Your task to perform on an android device: Go to display settings Image 0: 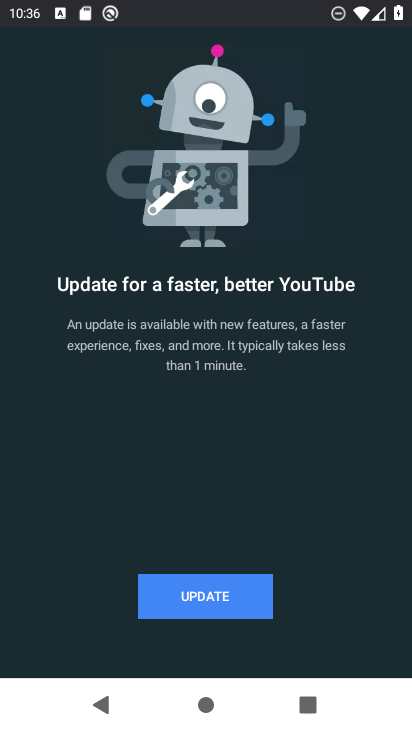
Step 0: press home button
Your task to perform on an android device: Go to display settings Image 1: 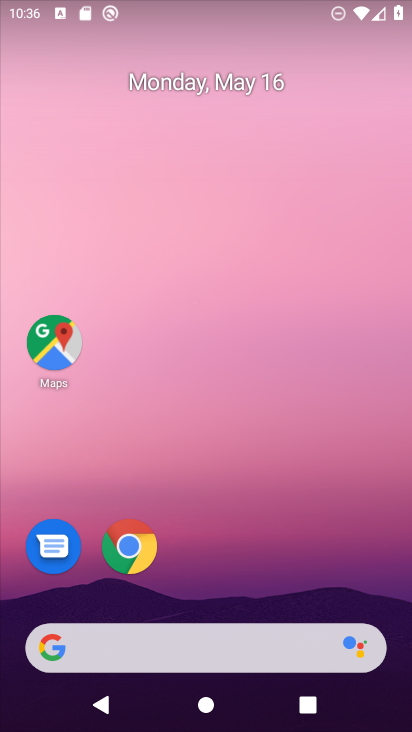
Step 1: drag from (241, 610) to (206, 236)
Your task to perform on an android device: Go to display settings Image 2: 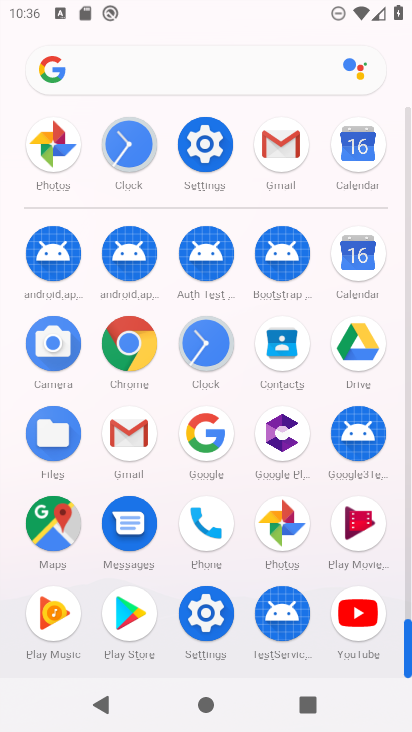
Step 2: click (214, 146)
Your task to perform on an android device: Go to display settings Image 3: 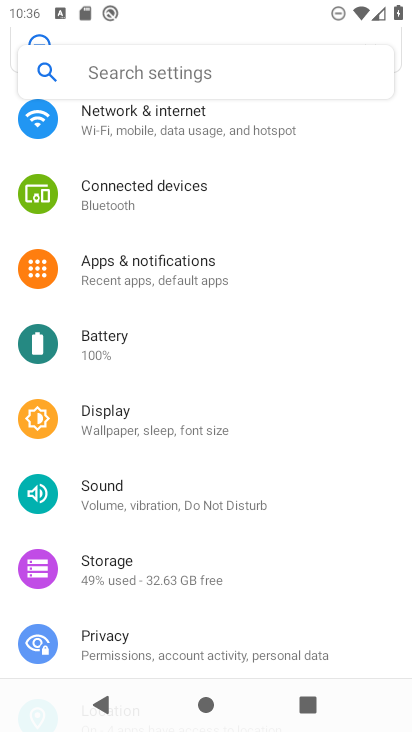
Step 3: click (143, 442)
Your task to perform on an android device: Go to display settings Image 4: 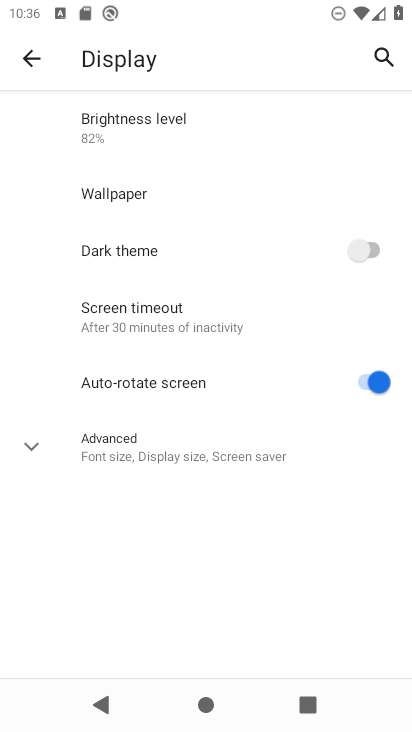
Step 4: task complete